Your task to perform on an android device: Open network settings Image 0: 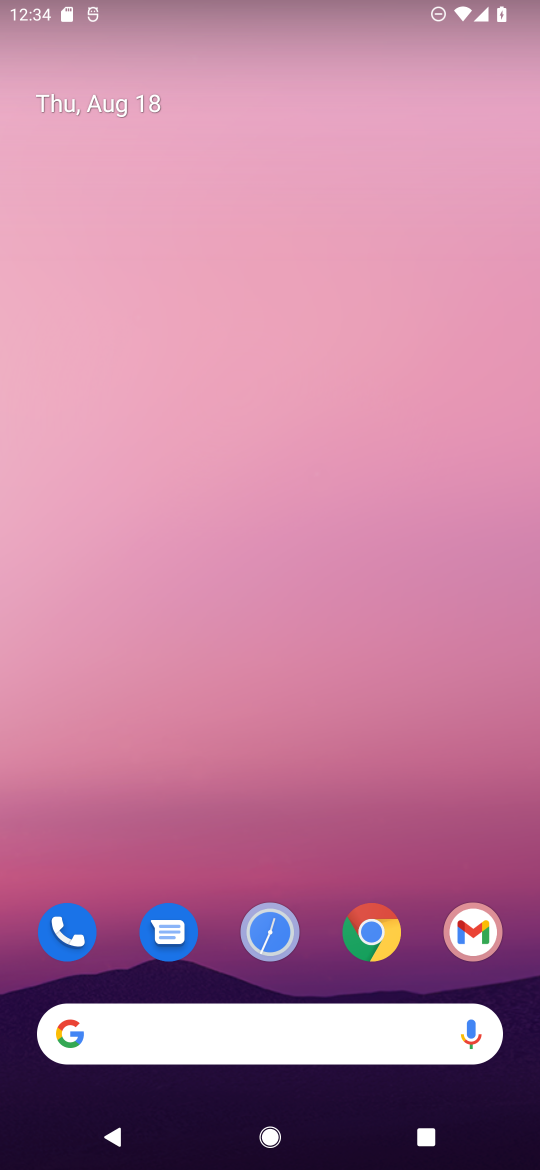
Step 0: drag from (277, 807) to (236, 174)
Your task to perform on an android device: Open network settings Image 1: 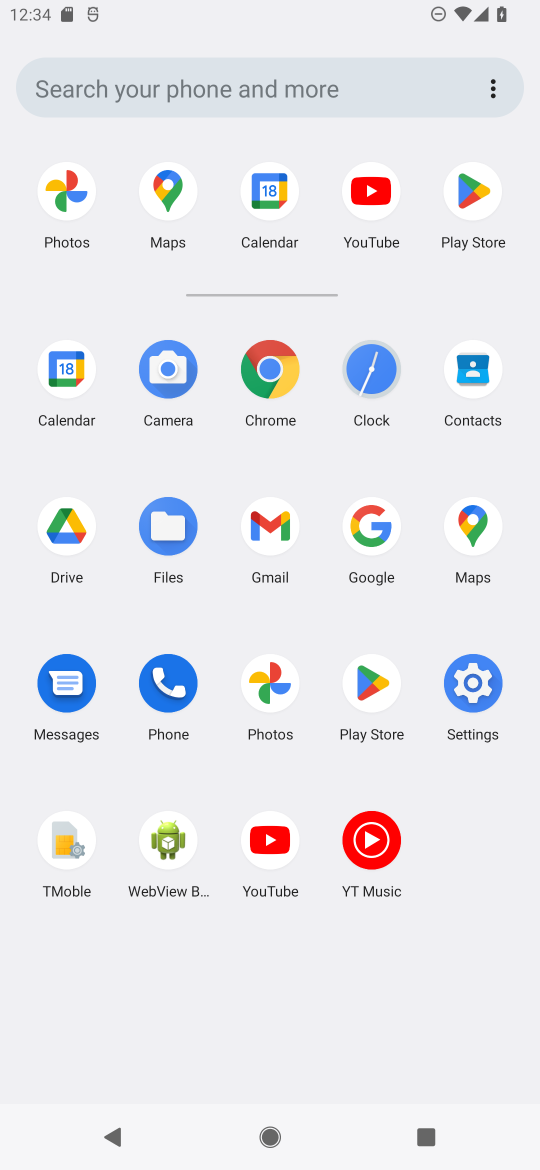
Step 1: click (472, 682)
Your task to perform on an android device: Open network settings Image 2: 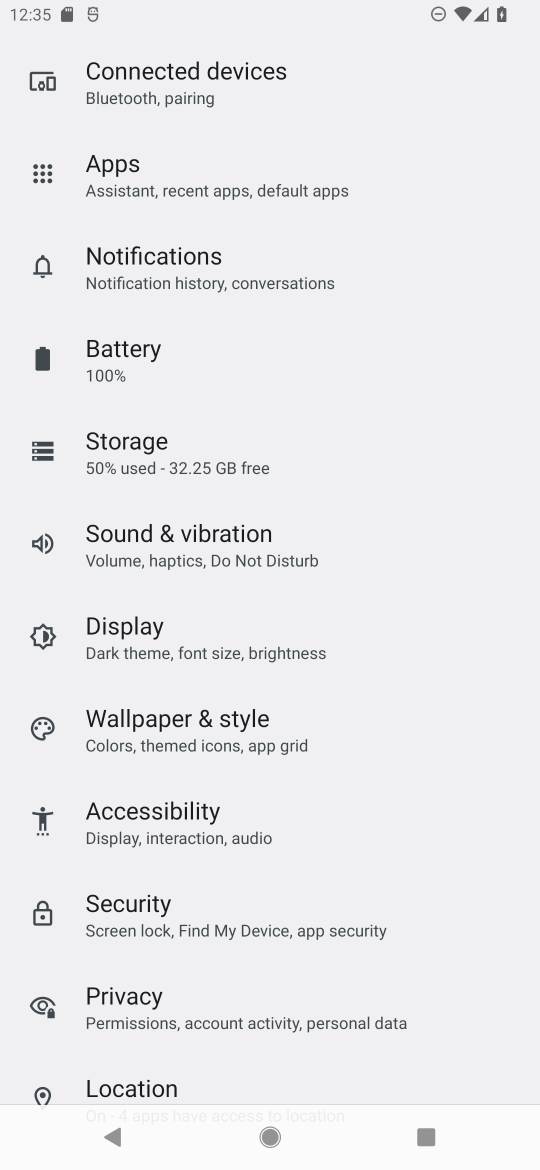
Step 2: drag from (326, 305) to (332, 793)
Your task to perform on an android device: Open network settings Image 3: 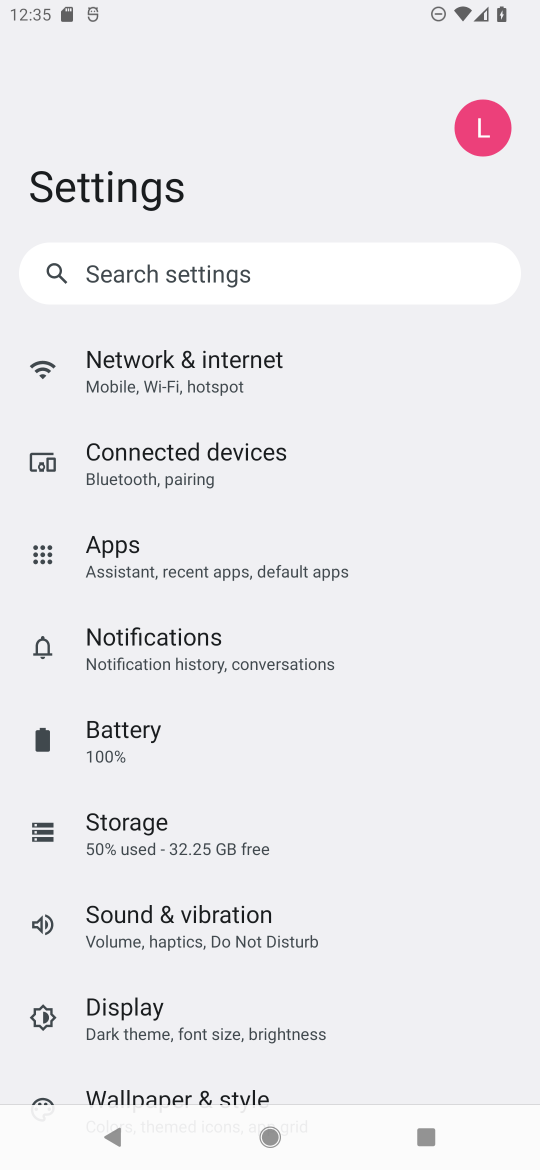
Step 3: click (221, 352)
Your task to perform on an android device: Open network settings Image 4: 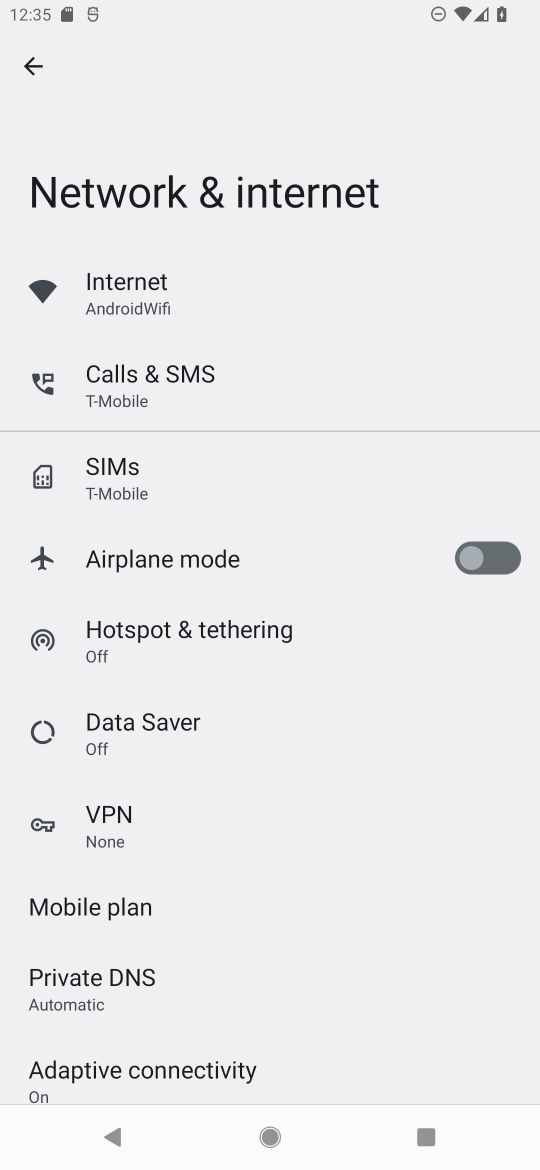
Step 4: task complete